Your task to perform on an android device: turn off wifi Image 0: 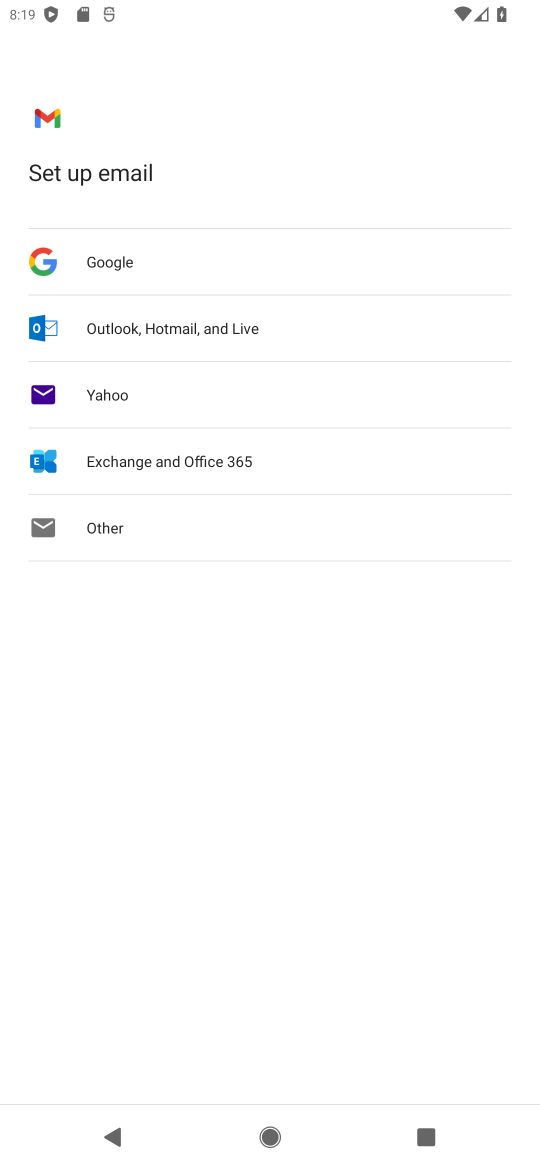
Step 0: press home button
Your task to perform on an android device: turn off wifi Image 1: 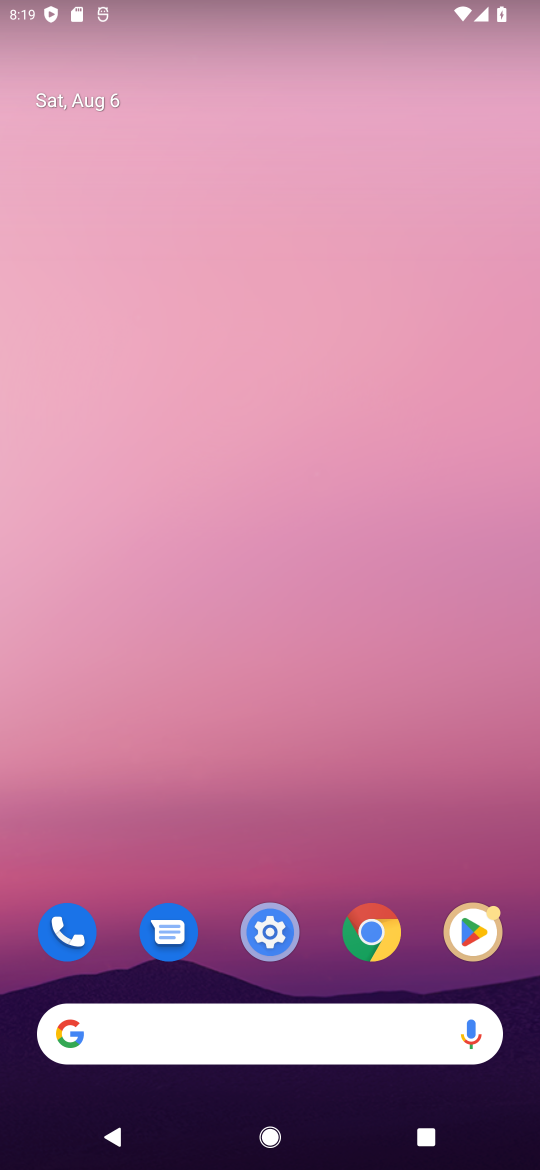
Step 1: drag from (183, 1034) to (188, 329)
Your task to perform on an android device: turn off wifi Image 2: 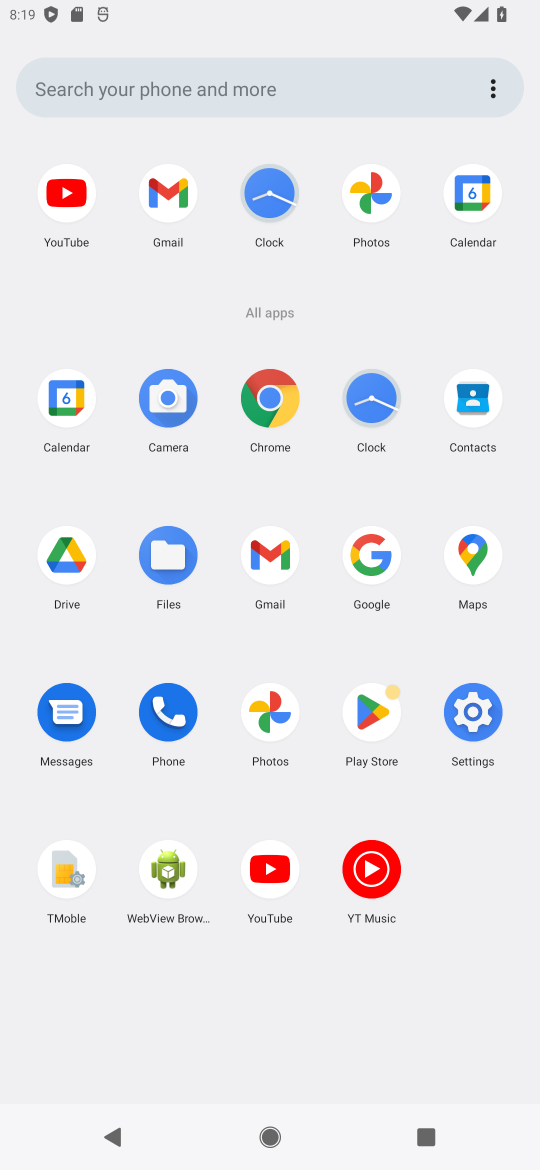
Step 2: click (469, 710)
Your task to perform on an android device: turn off wifi Image 3: 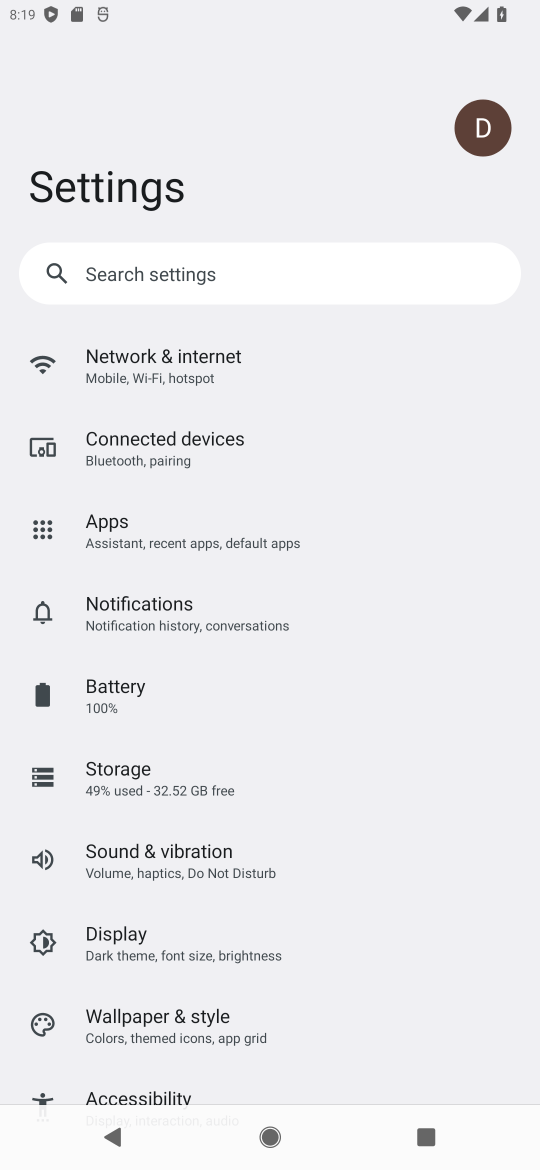
Step 3: click (198, 367)
Your task to perform on an android device: turn off wifi Image 4: 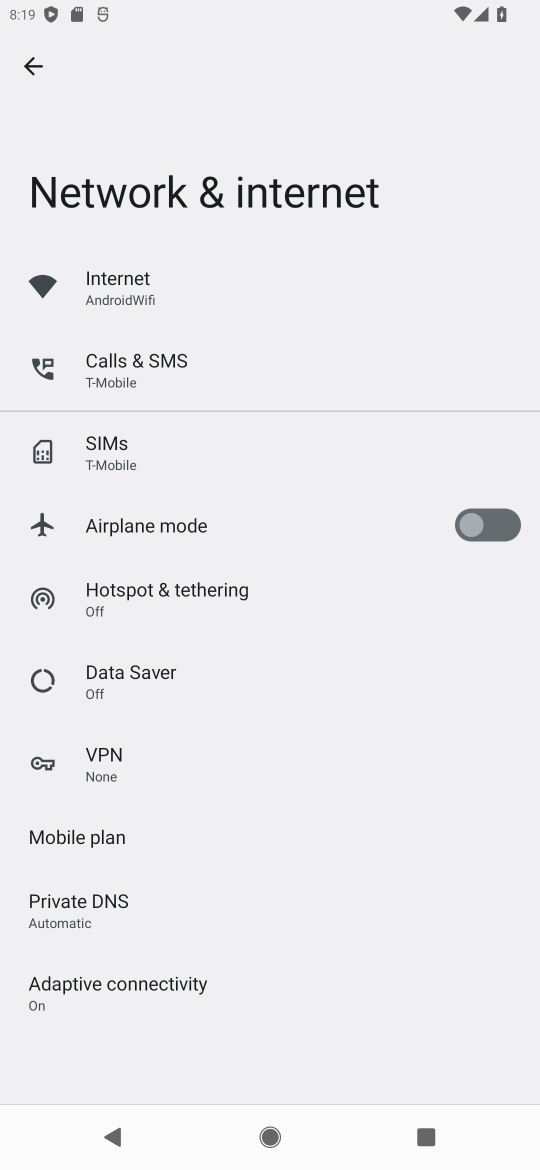
Step 4: click (135, 297)
Your task to perform on an android device: turn off wifi Image 5: 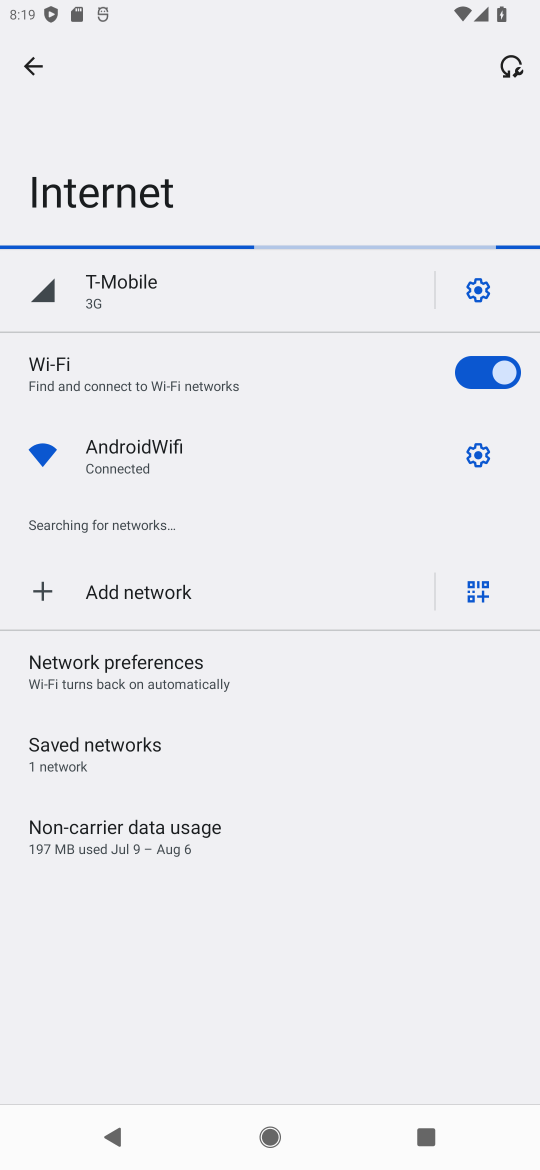
Step 5: click (467, 378)
Your task to perform on an android device: turn off wifi Image 6: 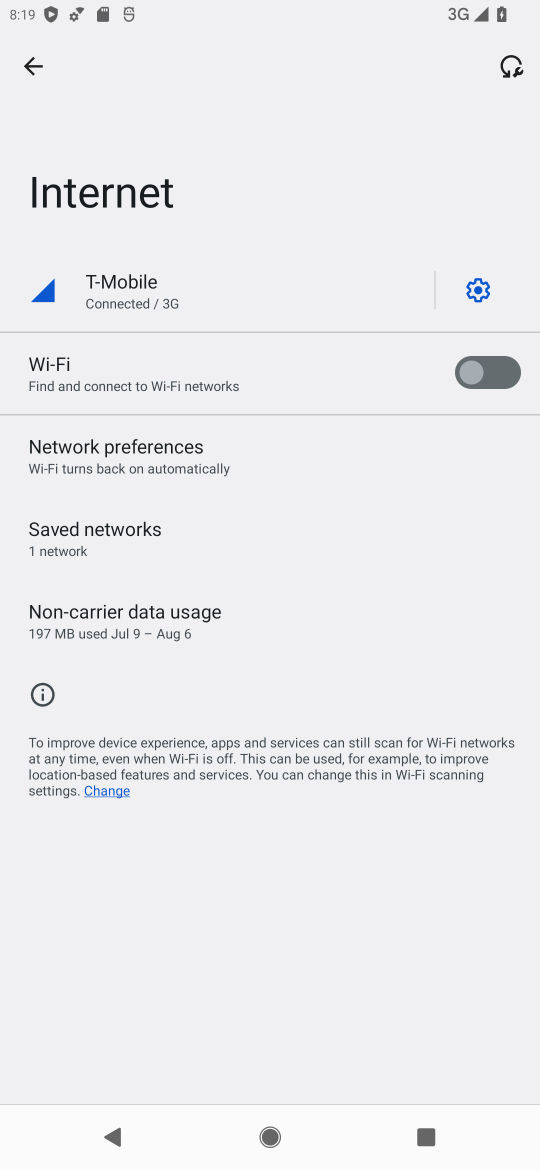
Step 6: task complete